Your task to perform on an android device: open chrome privacy settings Image 0: 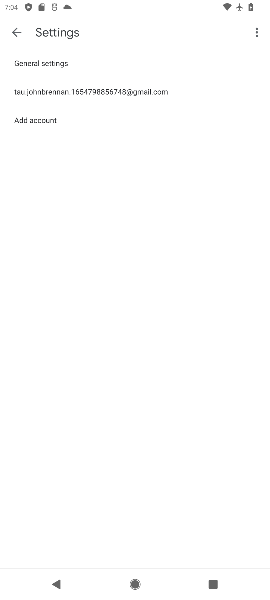
Step 0: press home button
Your task to perform on an android device: open chrome privacy settings Image 1: 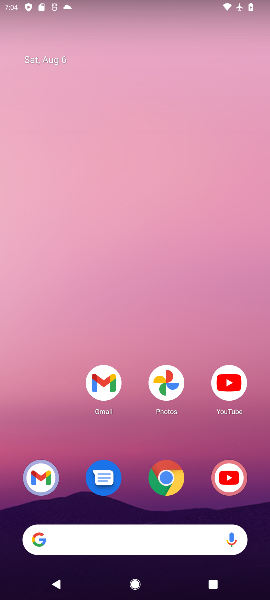
Step 1: click (178, 482)
Your task to perform on an android device: open chrome privacy settings Image 2: 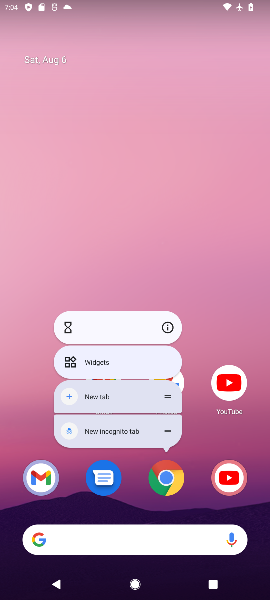
Step 2: click (172, 476)
Your task to perform on an android device: open chrome privacy settings Image 3: 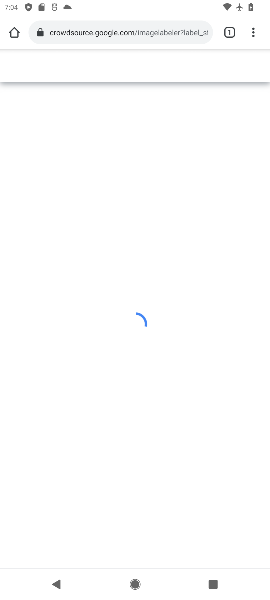
Step 3: drag from (258, 27) to (150, 433)
Your task to perform on an android device: open chrome privacy settings Image 4: 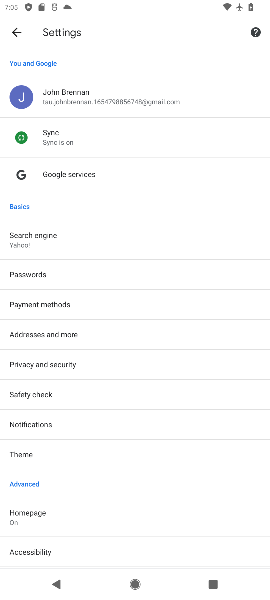
Step 4: click (23, 359)
Your task to perform on an android device: open chrome privacy settings Image 5: 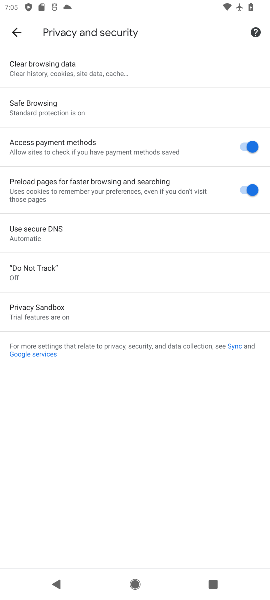
Step 5: task complete